Your task to perform on an android device: Go to ESPN.com Image 0: 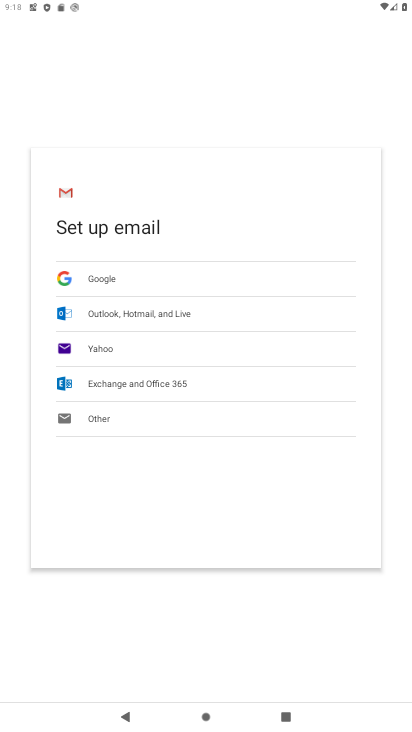
Step 0: press home button
Your task to perform on an android device: Go to ESPN.com Image 1: 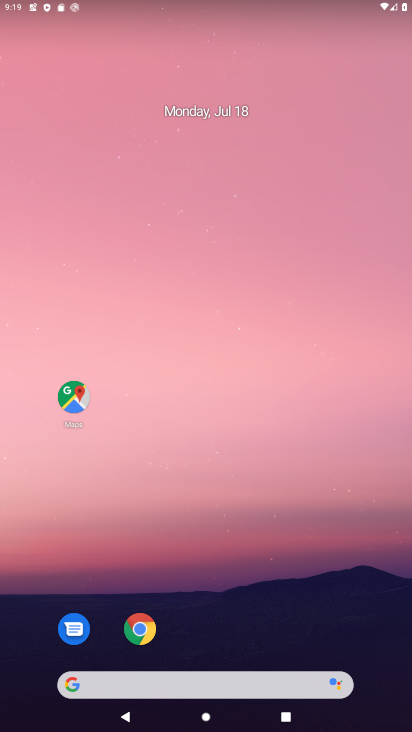
Step 1: drag from (284, 487) to (242, 184)
Your task to perform on an android device: Go to ESPN.com Image 2: 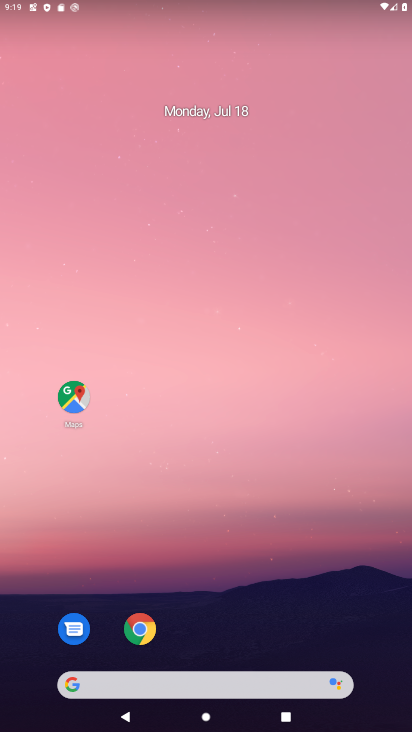
Step 2: drag from (269, 623) to (289, 32)
Your task to perform on an android device: Go to ESPN.com Image 3: 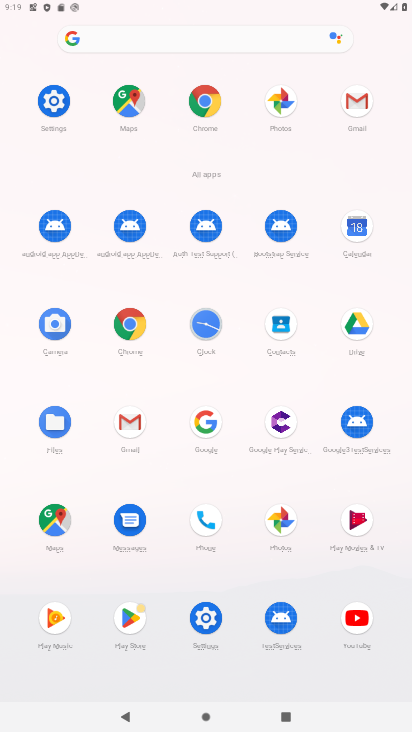
Step 3: click (201, 105)
Your task to perform on an android device: Go to ESPN.com Image 4: 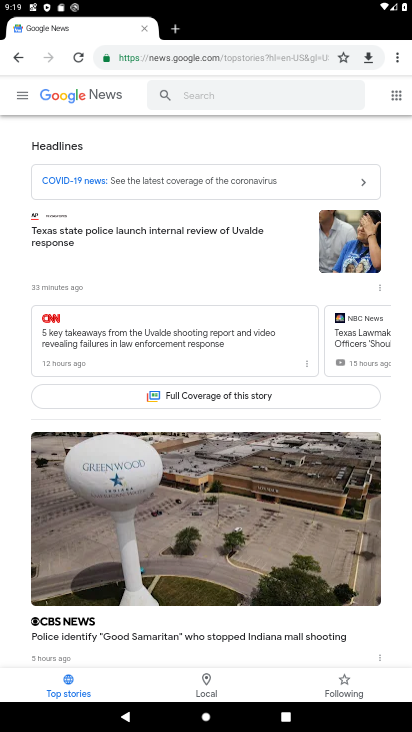
Step 4: click (211, 59)
Your task to perform on an android device: Go to ESPN.com Image 5: 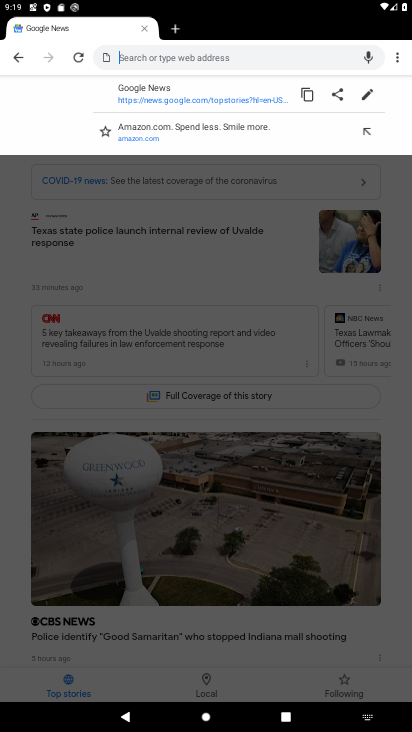
Step 5: type "espn.com"
Your task to perform on an android device: Go to ESPN.com Image 6: 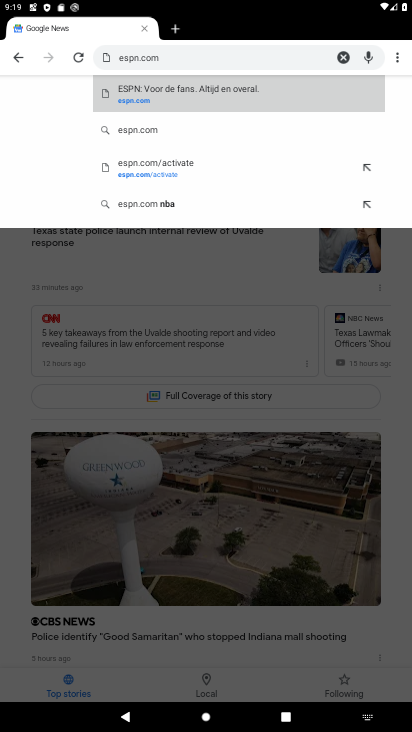
Step 6: click (148, 98)
Your task to perform on an android device: Go to ESPN.com Image 7: 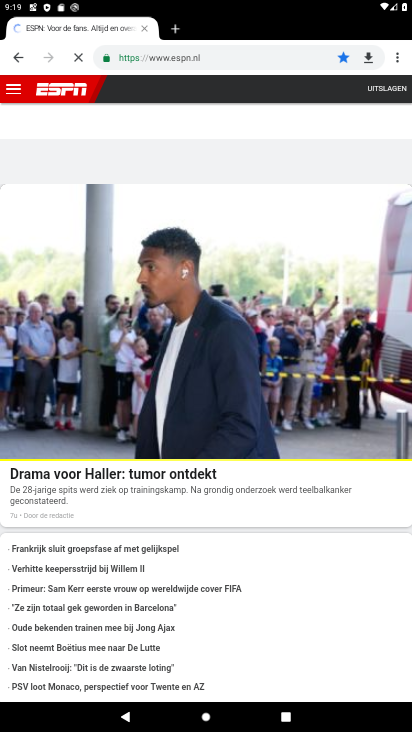
Step 7: task complete